Your task to perform on an android device: toggle notification dots Image 0: 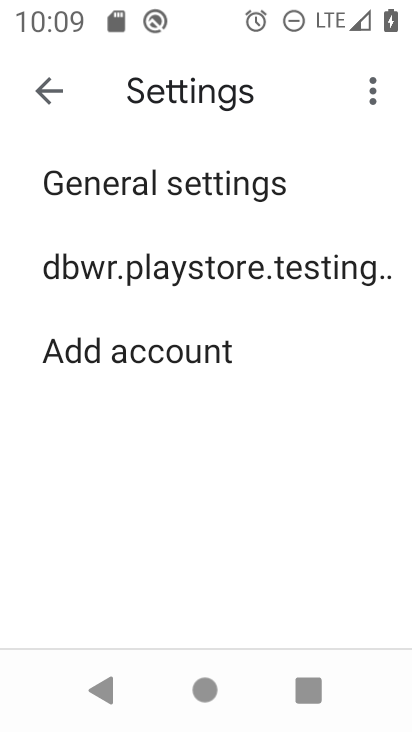
Step 0: press home button
Your task to perform on an android device: toggle notification dots Image 1: 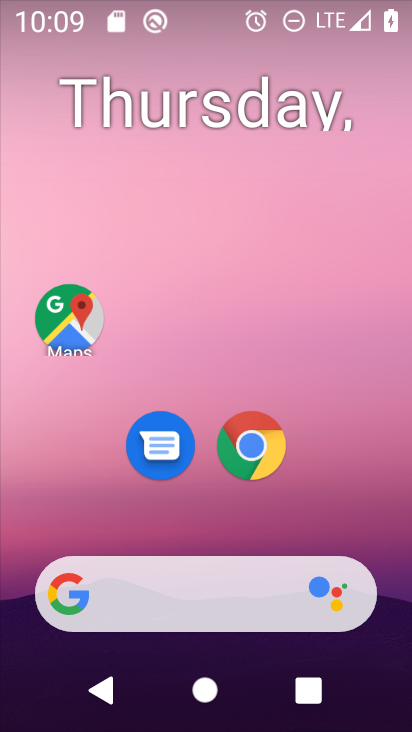
Step 1: click (389, 622)
Your task to perform on an android device: toggle notification dots Image 2: 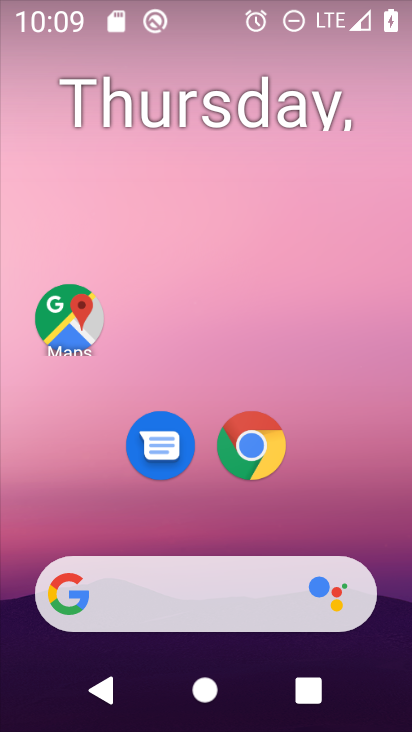
Step 2: drag from (375, 334) to (321, 79)
Your task to perform on an android device: toggle notification dots Image 3: 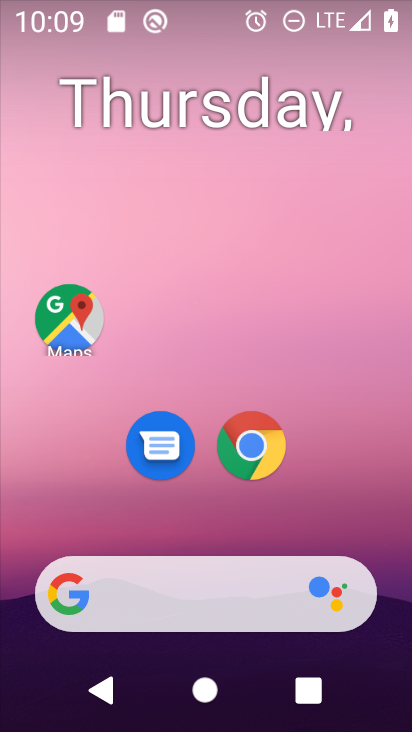
Step 3: drag from (394, 625) to (360, 26)
Your task to perform on an android device: toggle notification dots Image 4: 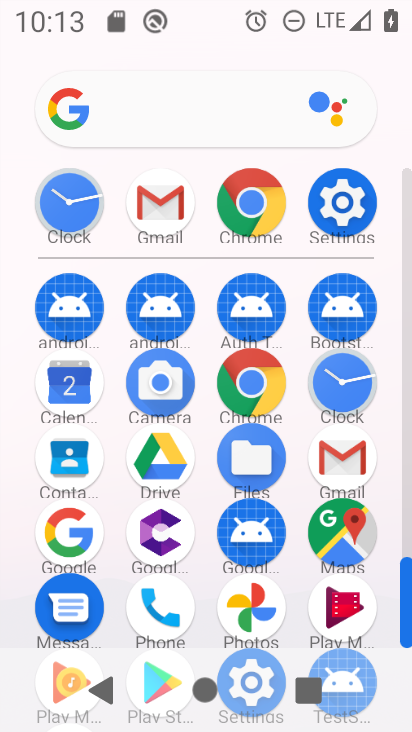
Step 4: click (332, 198)
Your task to perform on an android device: toggle notification dots Image 5: 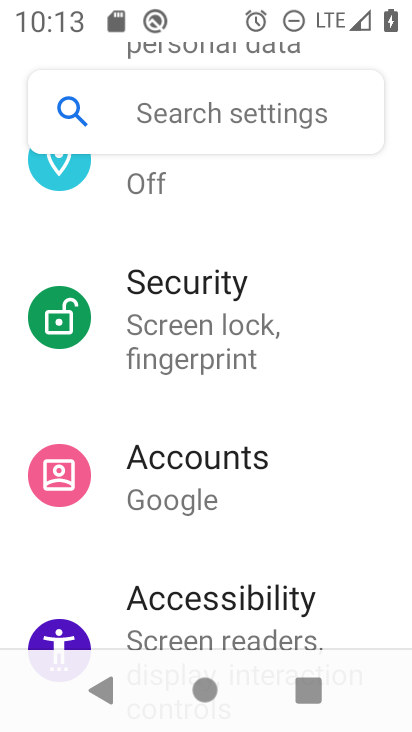
Step 5: task complete